Your task to perform on an android device: visit the assistant section in the google photos Image 0: 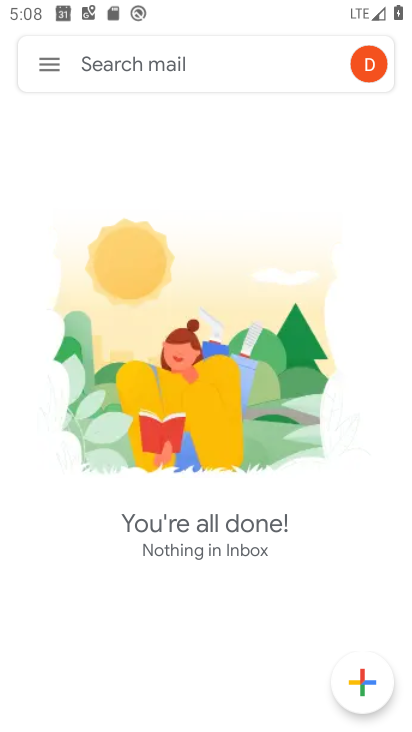
Step 0: press home button
Your task to perform on an android device: visit the assistant section in the google photos Image 1: 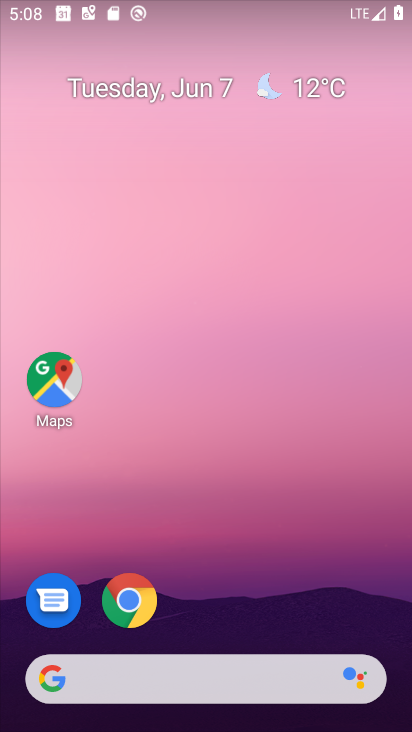
Step 1: drag from (304, 530) to (277, 131)
Your task to perform on an android device: visit the assistant section in the google photos Image 2: 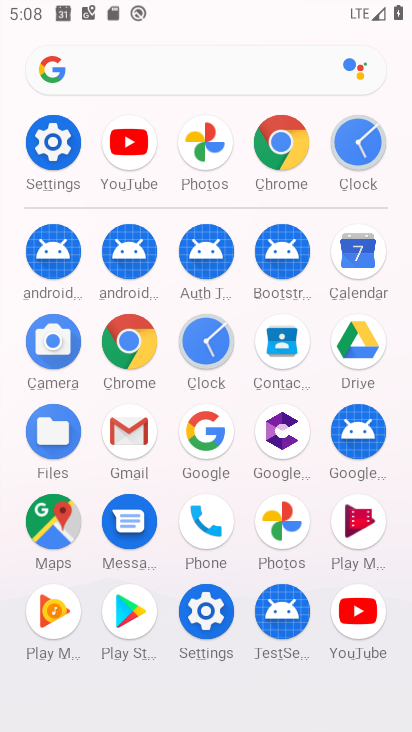
Step 2: click (284, 518)
Your task to perform on an android device: visit the assistant section in the google photos Image 3: 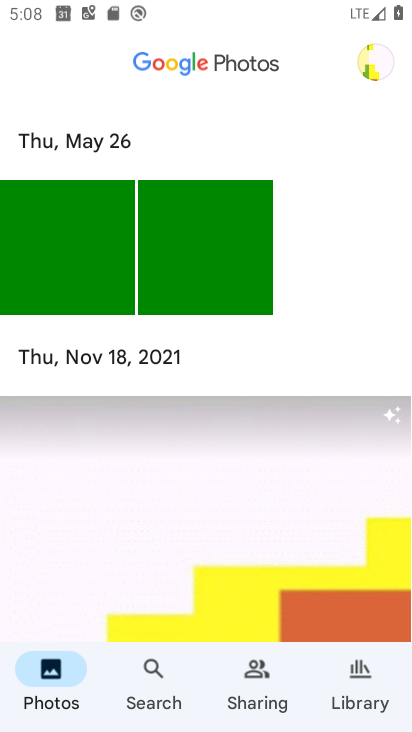
Step 3: click (264, 702)
Your task to perform on an android device: visit the assistant section in the google photos Image 4: 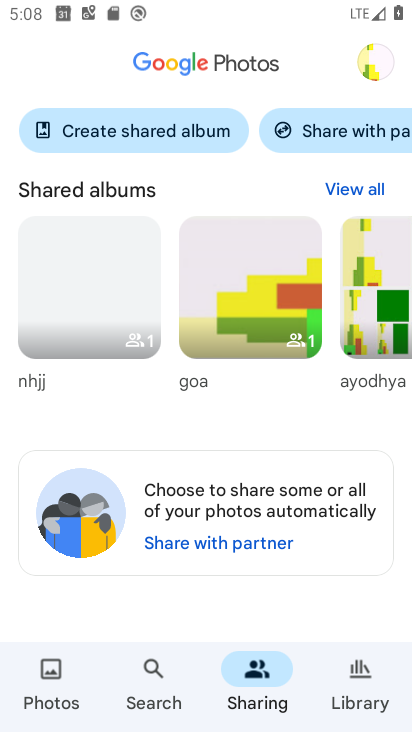
Step 4: click (360, 696)
Your task to perform on an android device: visit the assistant section in the google photos Image 5: 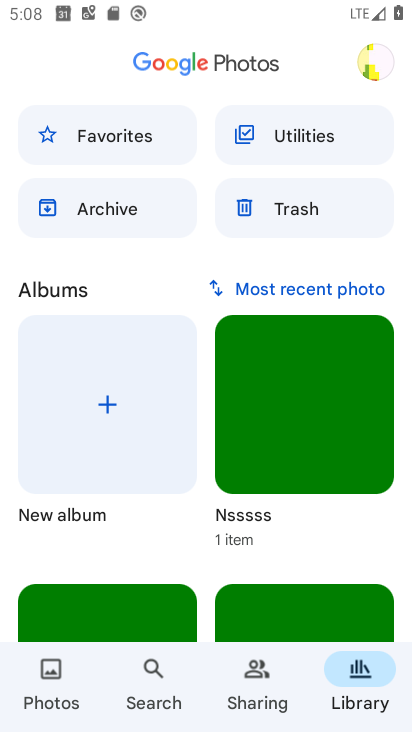
Step 5: click (260, 680)
Your task to perform on an android device: visit the assistant section in the google photos Image 6: 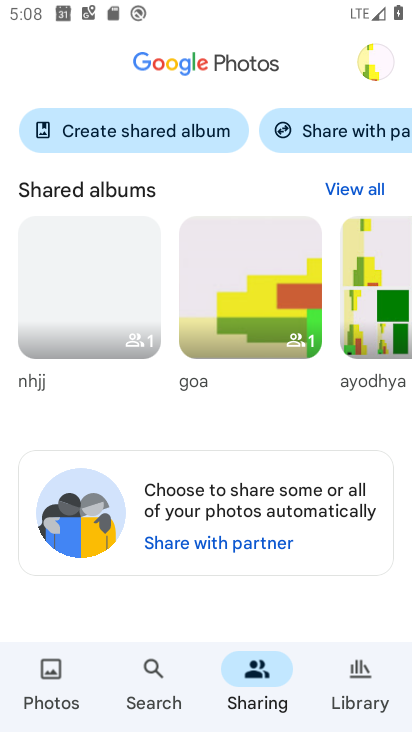
Step 6: drag from (285, 522) to (332, 96)
Your task to perform on an android device: visit the assistant section in the google photos Image 7: 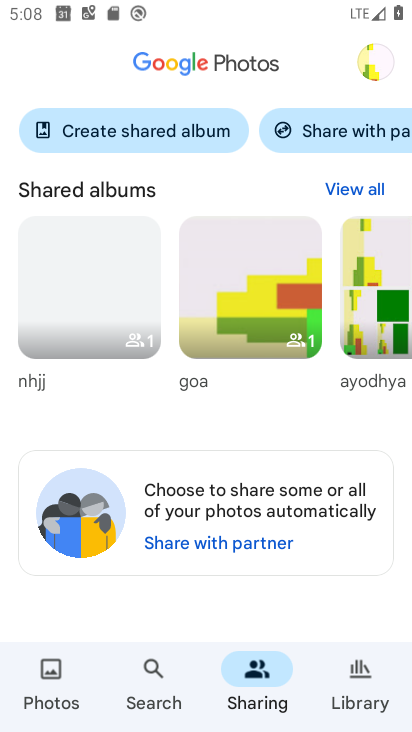
Step 7: drag from (341, 299) to (3, 345)
Your task to perform on an android device: visit the assistant section in the google photos Image 8: 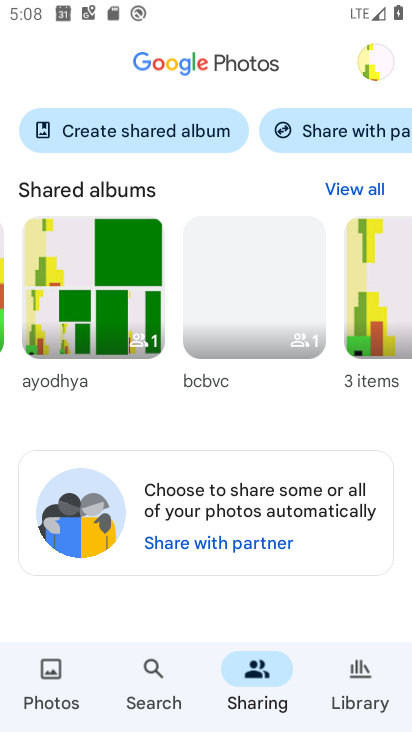
Step 8: click (342, 683)
Your task to perform on an android device: visit the assistant section in the google photos Image 9: 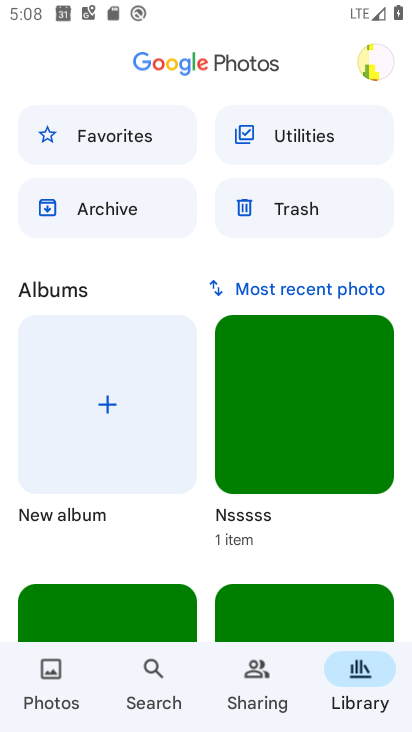
Step 9: task complete